Your task to perform on an android device: Is it going to rain today? Image 0: 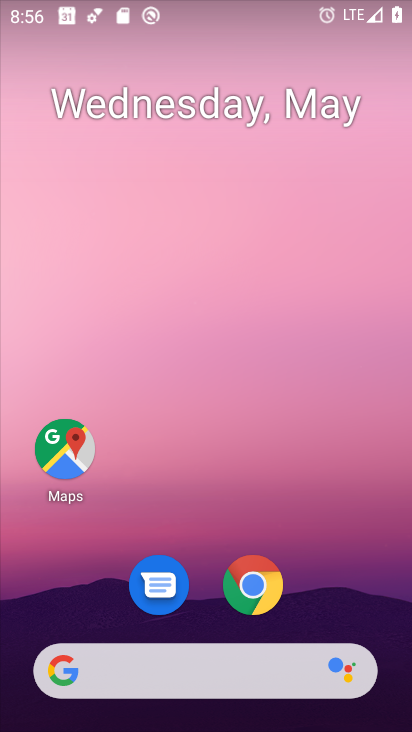
Step 0: click (216, 677)
Your task to perform on an android device: Is it going to rain today? Image 1: 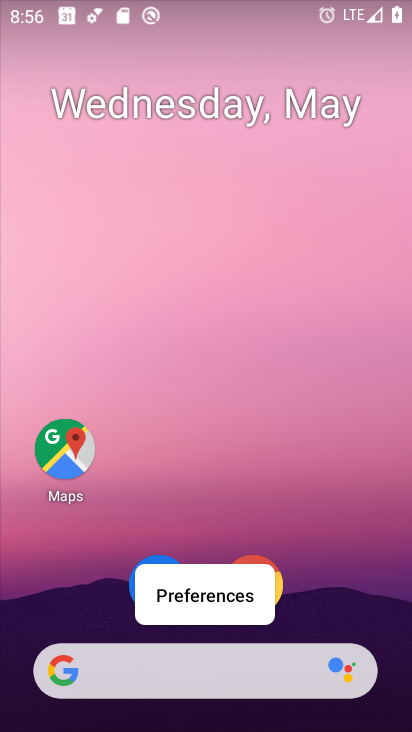
Step 1: click (155, 669)
Your task to perform on an android device: Is it going to rain today? Image 2: 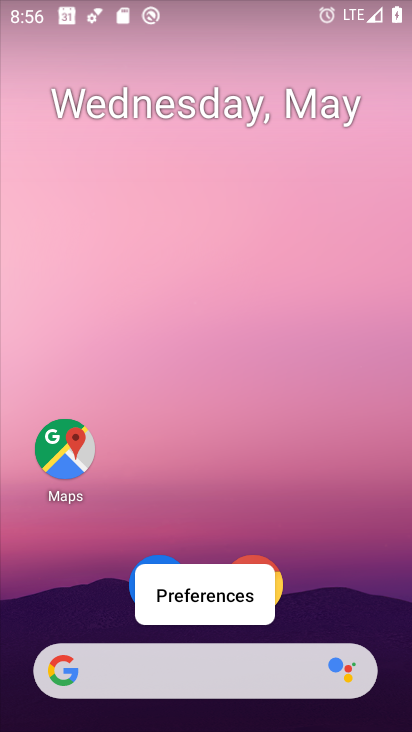
Step 2: click (275, 670)
Your task to perform on an android device: Is it going to rain today? Image 3: 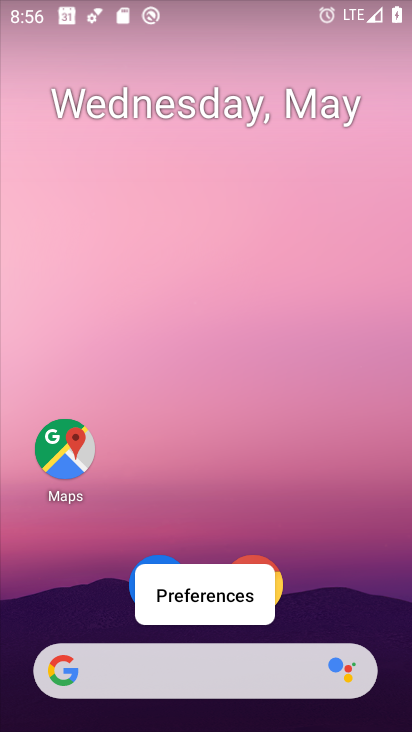
Step 3: click (282, 668)
Your task to perform on an android device: Is it going to rain today? Image 4: 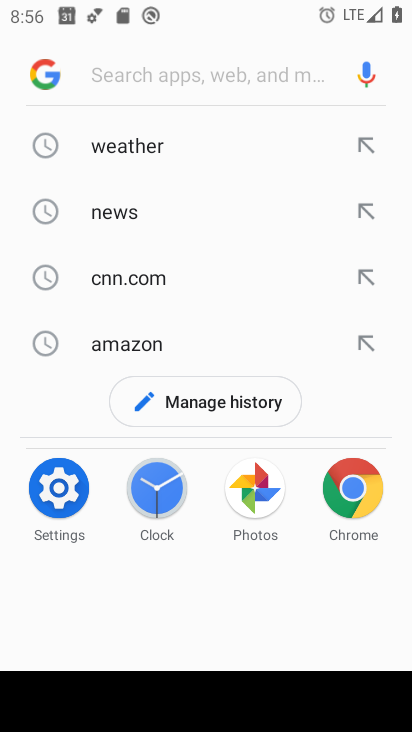
Step 4: click (130, 142)
Your task to perform on an android device: Is it going to rain today? Image 5: 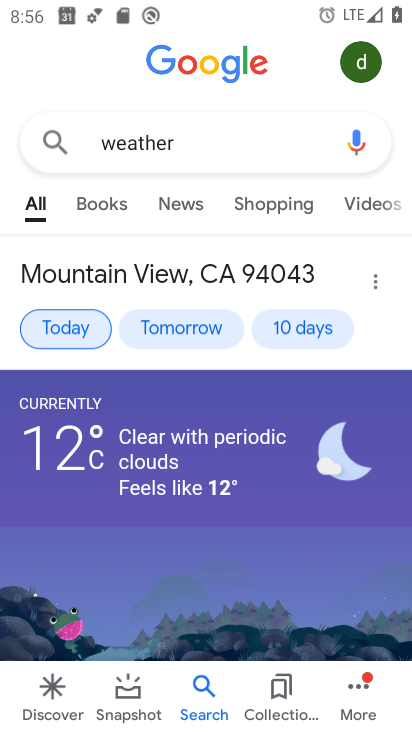
Step 5: click (55, 320)
Your task to perform on an android device: Is it going to rain today? Image 6: 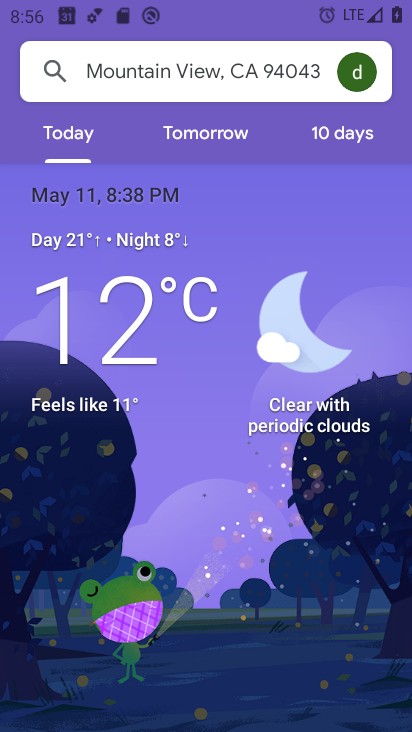
Step 6: task complete